Your task to perform on an android device: turn off location history Image 0: 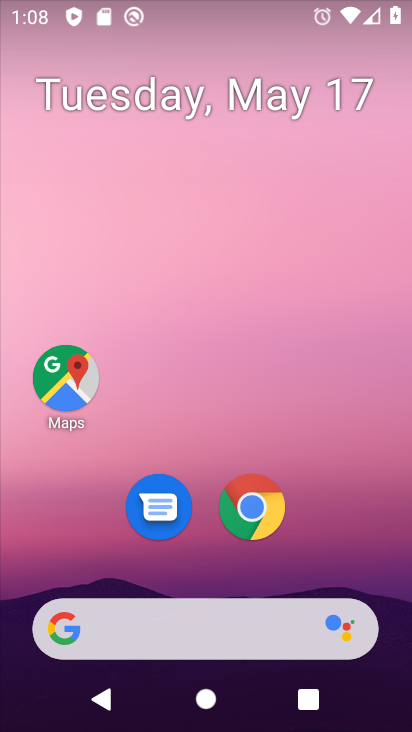
Step 0: drag from (343, 548) to (346, 276)
Your task to perform on an android device: turn off location history Image 1: 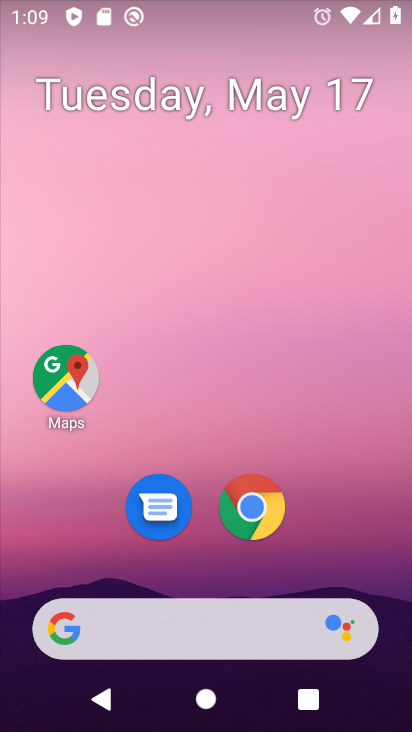
Step 1: drag from (352, 539) to (336, 205)
Your task to perform on an android device: turn off location history Image 2: 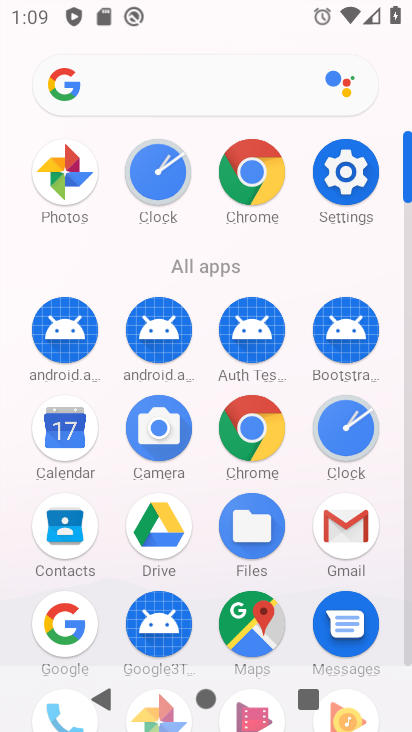
Step 2: click (319, 174)
Your task to perform on an android device: turn off location history Image 3: 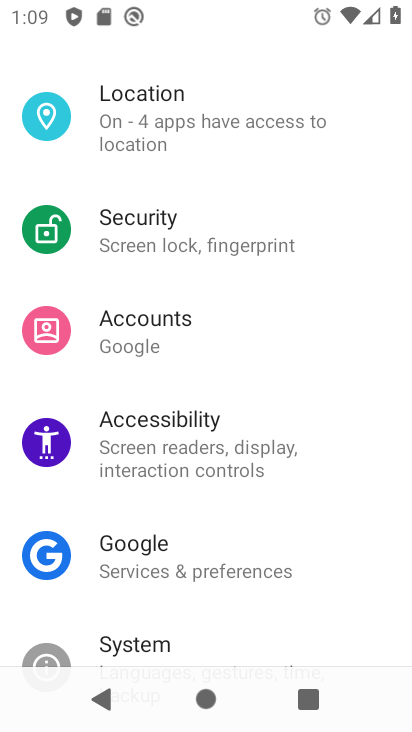
Step 3: click (194, 114)
Your task to perform on an android device: turn off location history Image 4: 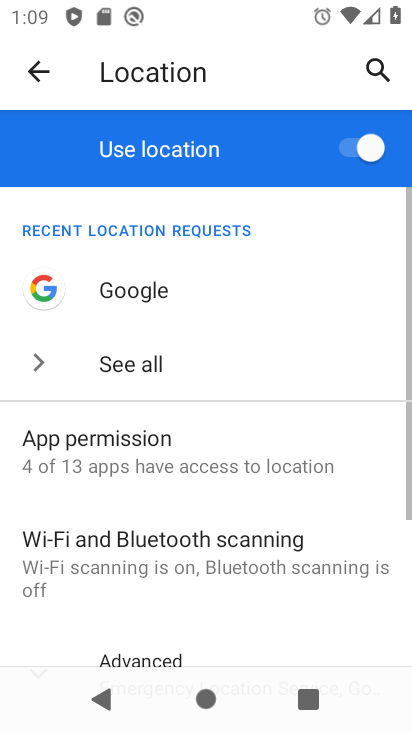
Step 4: drag from (145, 632) to (190, 342)
Your task to perform on an android device: turn off location history Image 5: 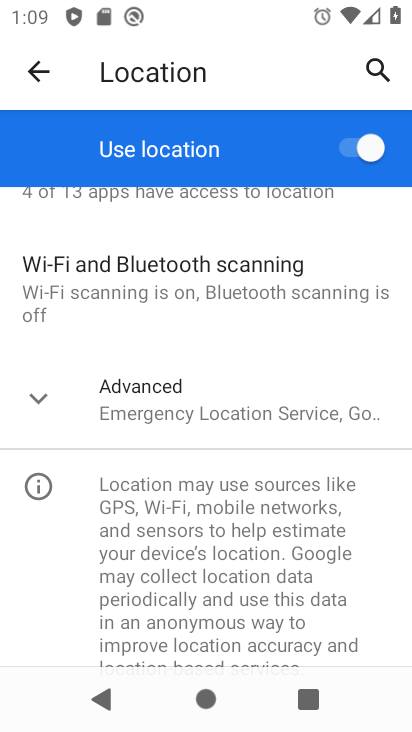
Step 5: click (174, 410)
Your task to perform on an android device: turn off location history Image 6: 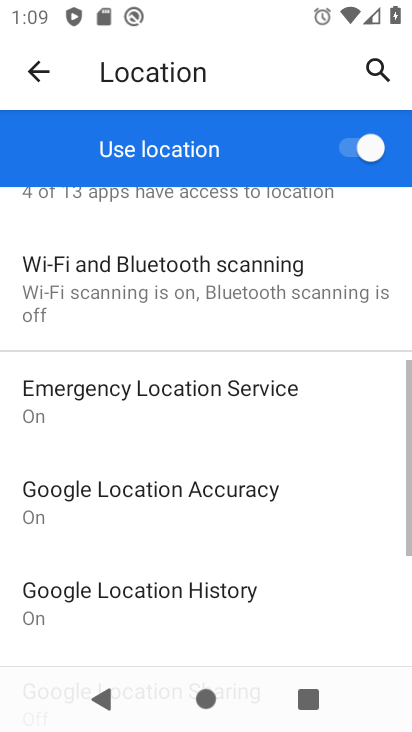
Step 6: drag from (189, 620) to (239, 384)
Your task to perform on an android device: turn off location history Image 7: 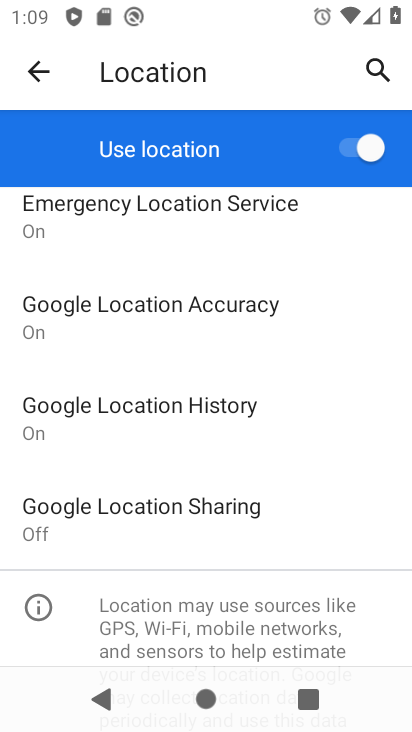
Step 7: click (192, 409)
Your task to perform on an android device: turn off location history Image 8: 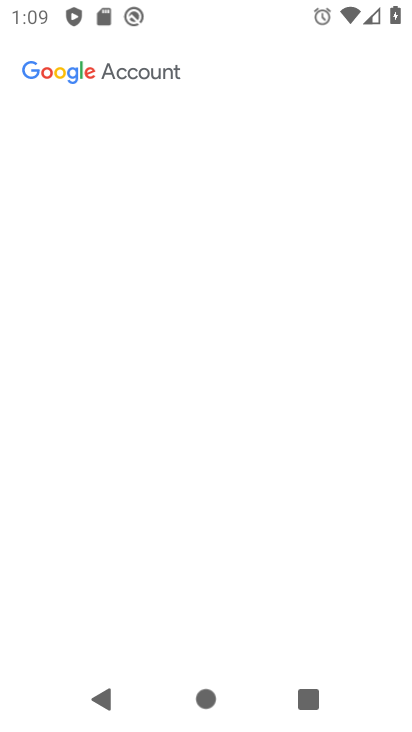
Step 8: drag from (230, 609) to (287, 304)
Your task to perform on an android device: turn off location history Image 9: 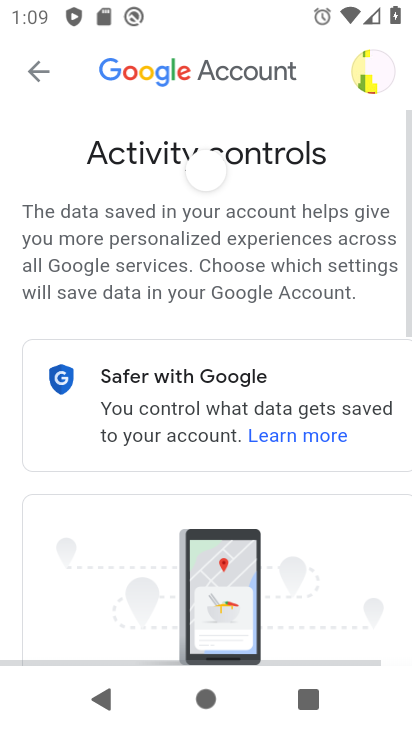
Step 9: drag from (159, 632) to (354, 104)
Your task to perform on an android device: turn off location history Image 10: 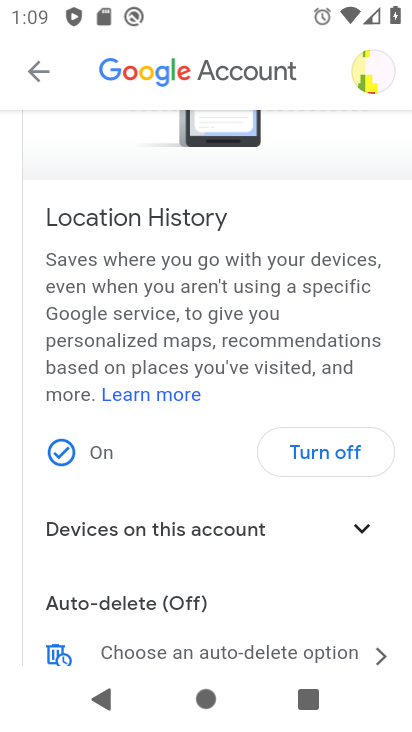
Step 10: click (332, 450)
Your task to perform on an android device: turn off location history Image 11: 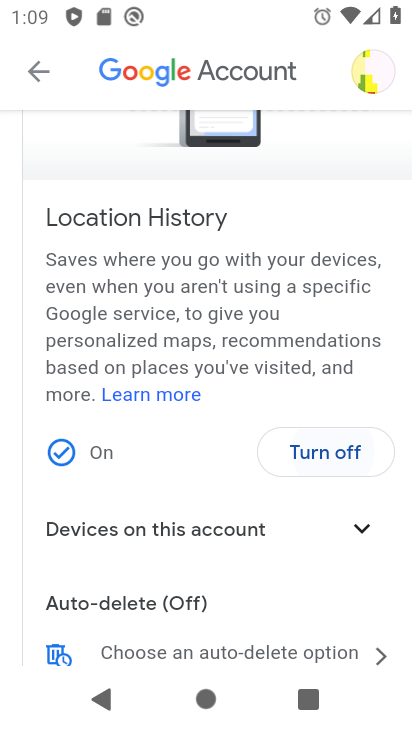
Step 11: click (331, 449)
Your task to perform on an android device: turn off location history Image 12: 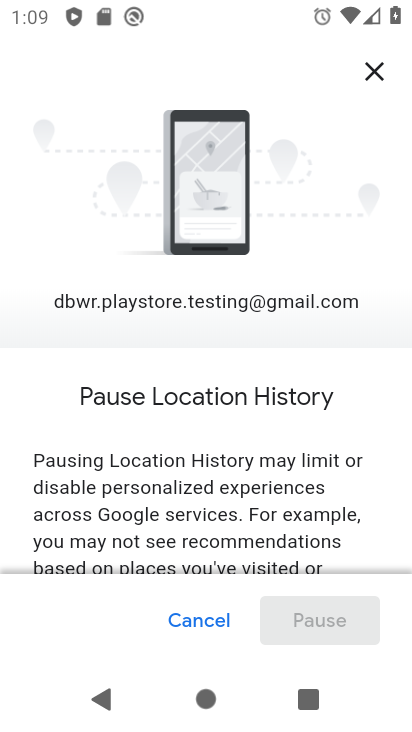
Step 12: task complete